Your task to perform on an android device: open app "Google Maps" (install if not already installed) Image 0: 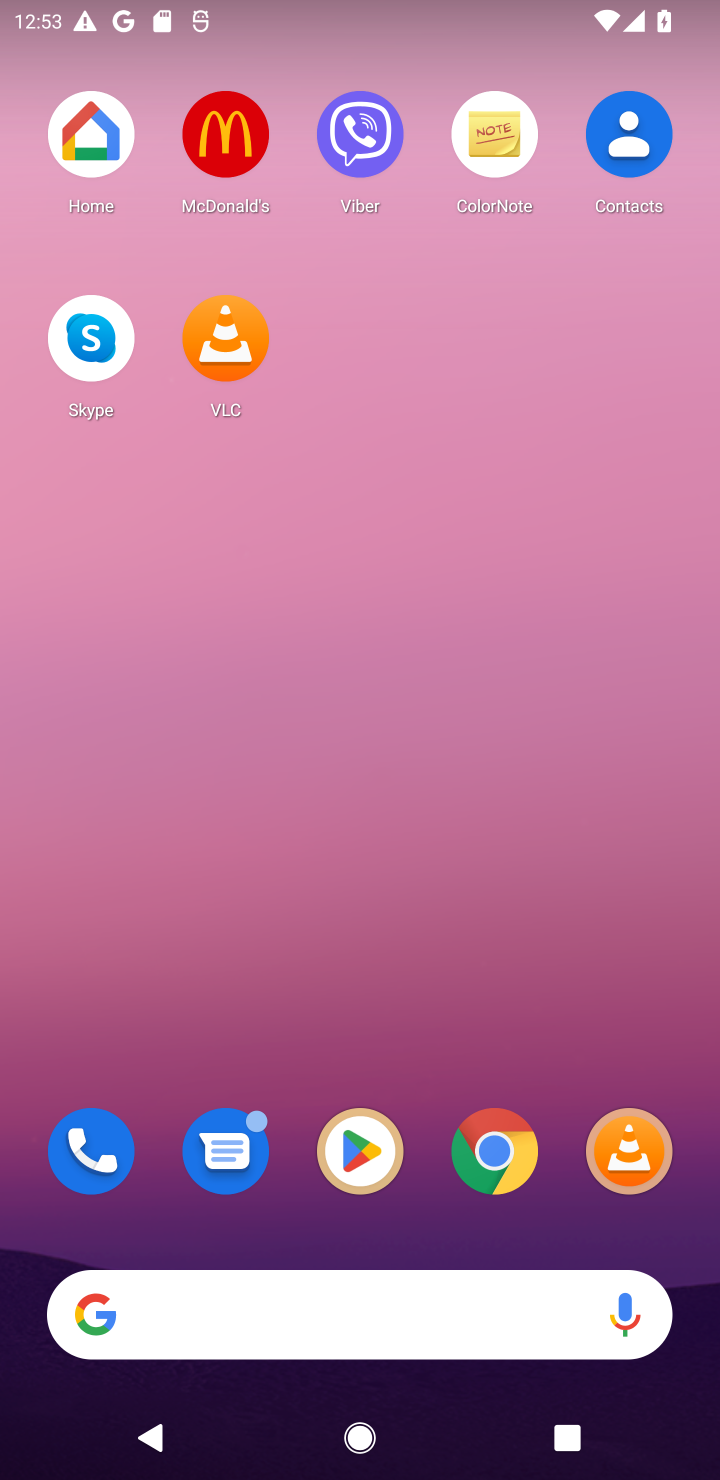
Step 0: click (356, 1141)
Your task to perform on an android device: open app "Google Maps" (install if not already installed) Image 1: 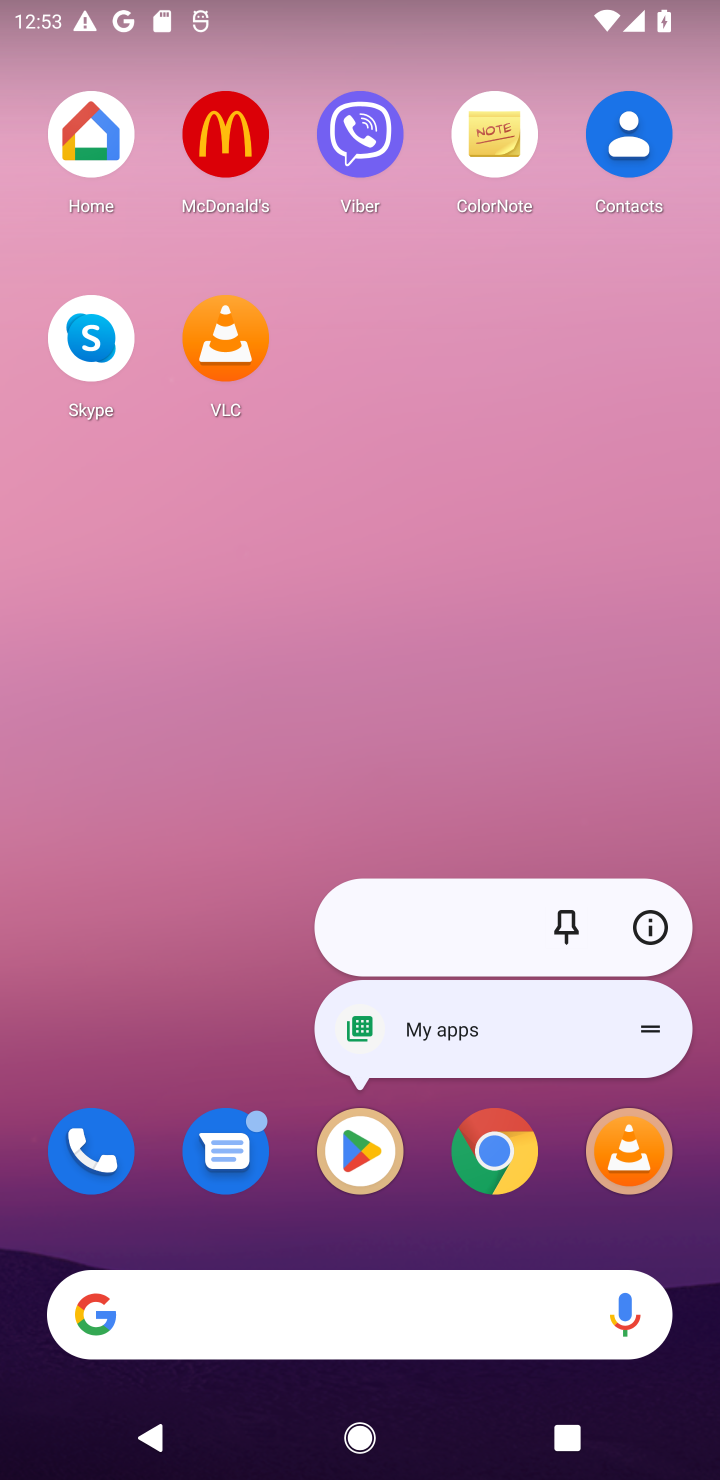
Step 1: click (375, 1145)
Your task to perform on an android device: open app "Google Maps" (install if not already installed) Image 2: 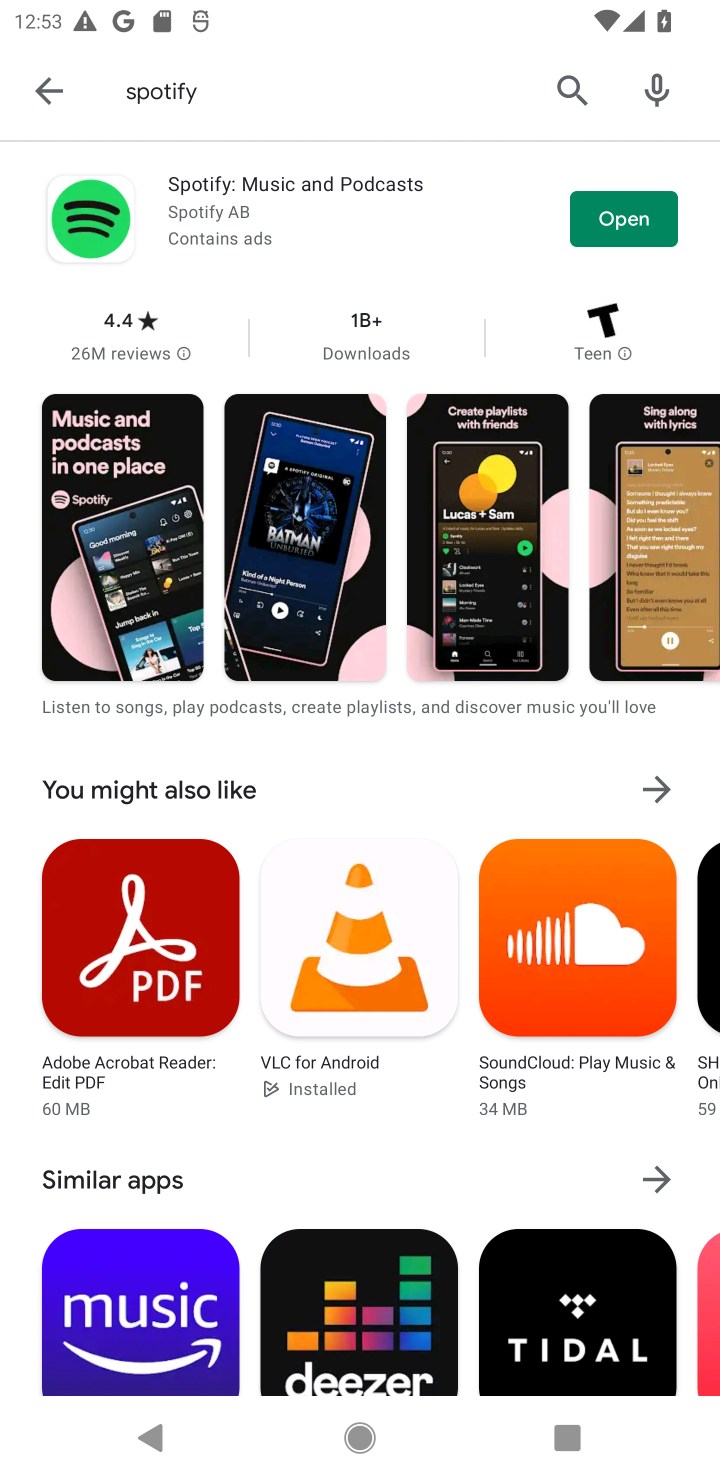
Step 2: click (560, 97)
Your task to perform on an android device: open app "Google Maps" (install if not already installed) Image 3: 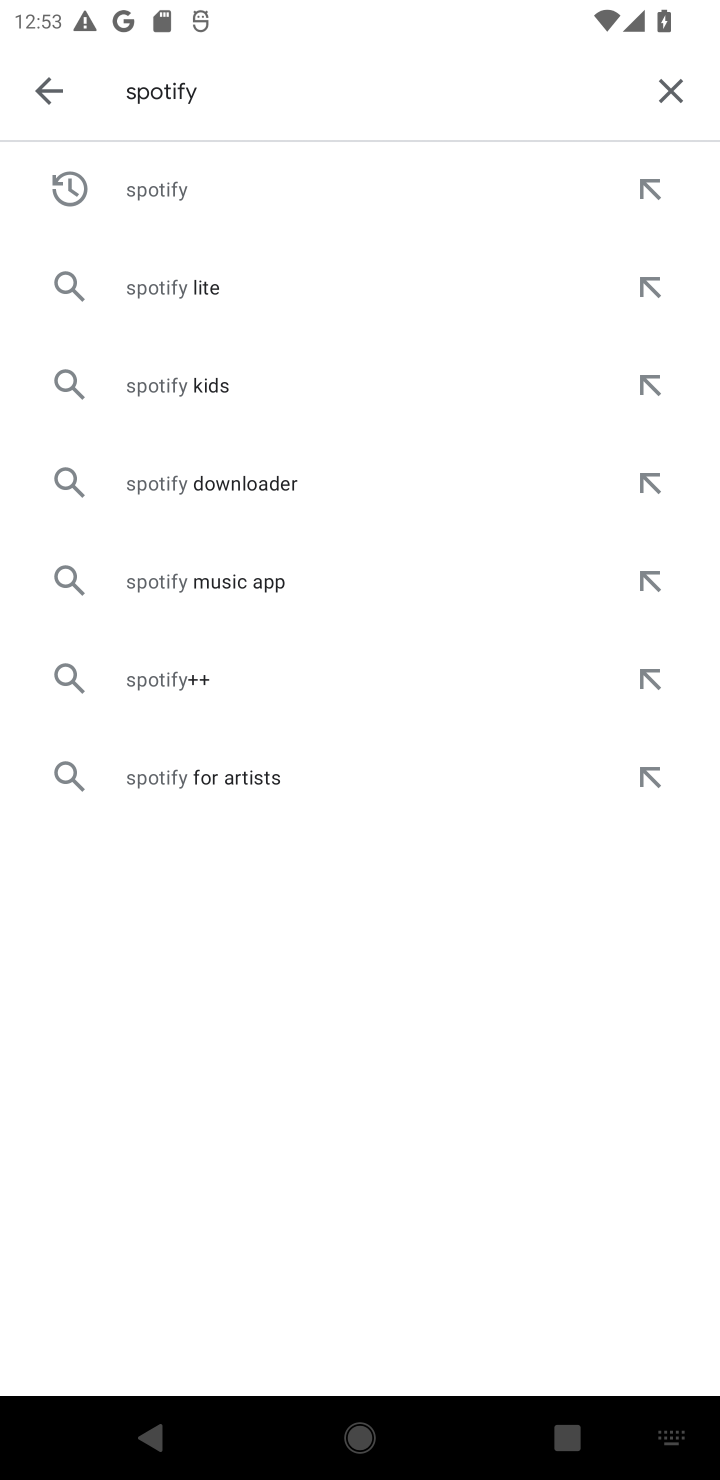
Step 3: click (670, 89)
Your task to perform on an android device: open app "Google Maps" (install if not already installed) Image 4: 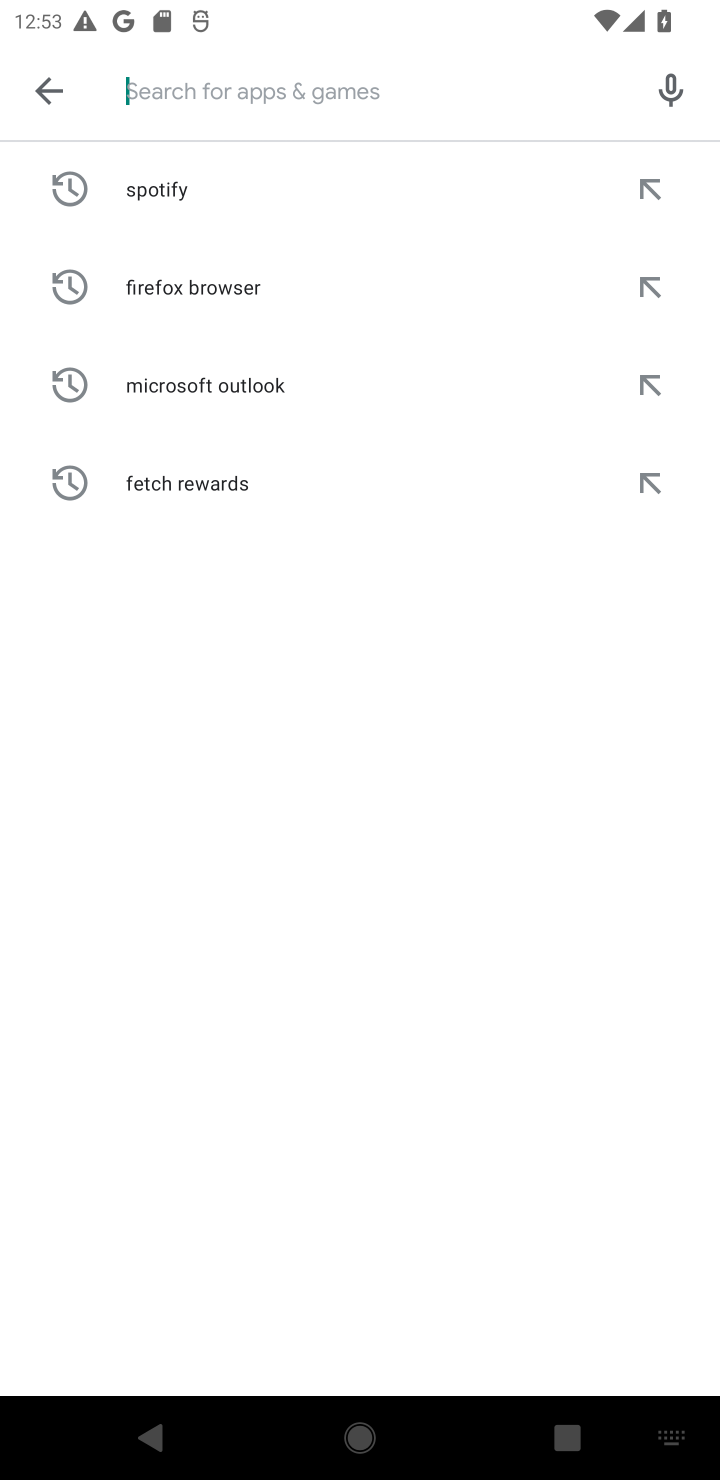
Step 4: type "Google Maps"
Your task to perform on an android device: open app "Google Maps" (install if not already installed) Image 5: 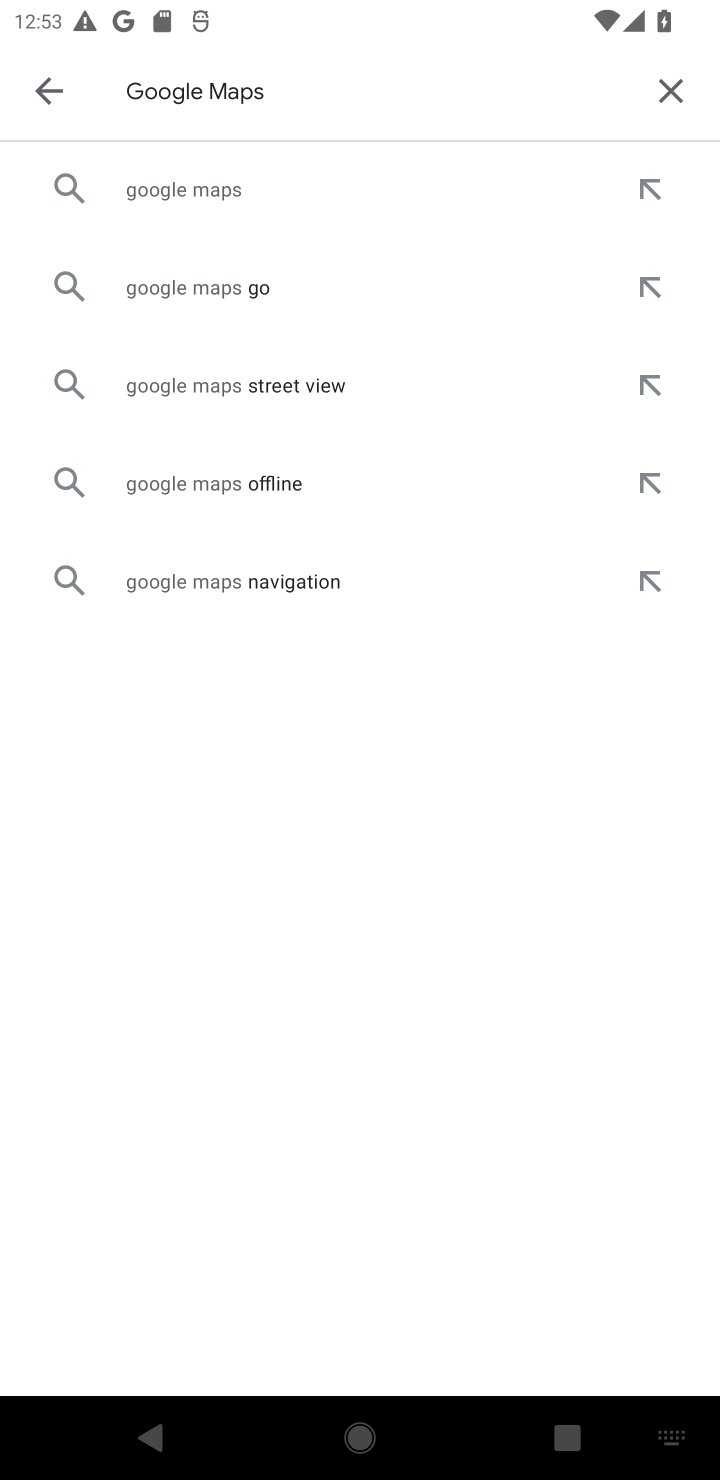
Step 5: click (286, 185)
Your task to perform on an android device: open app "Google Maps" (install if not already installed) Image 6: 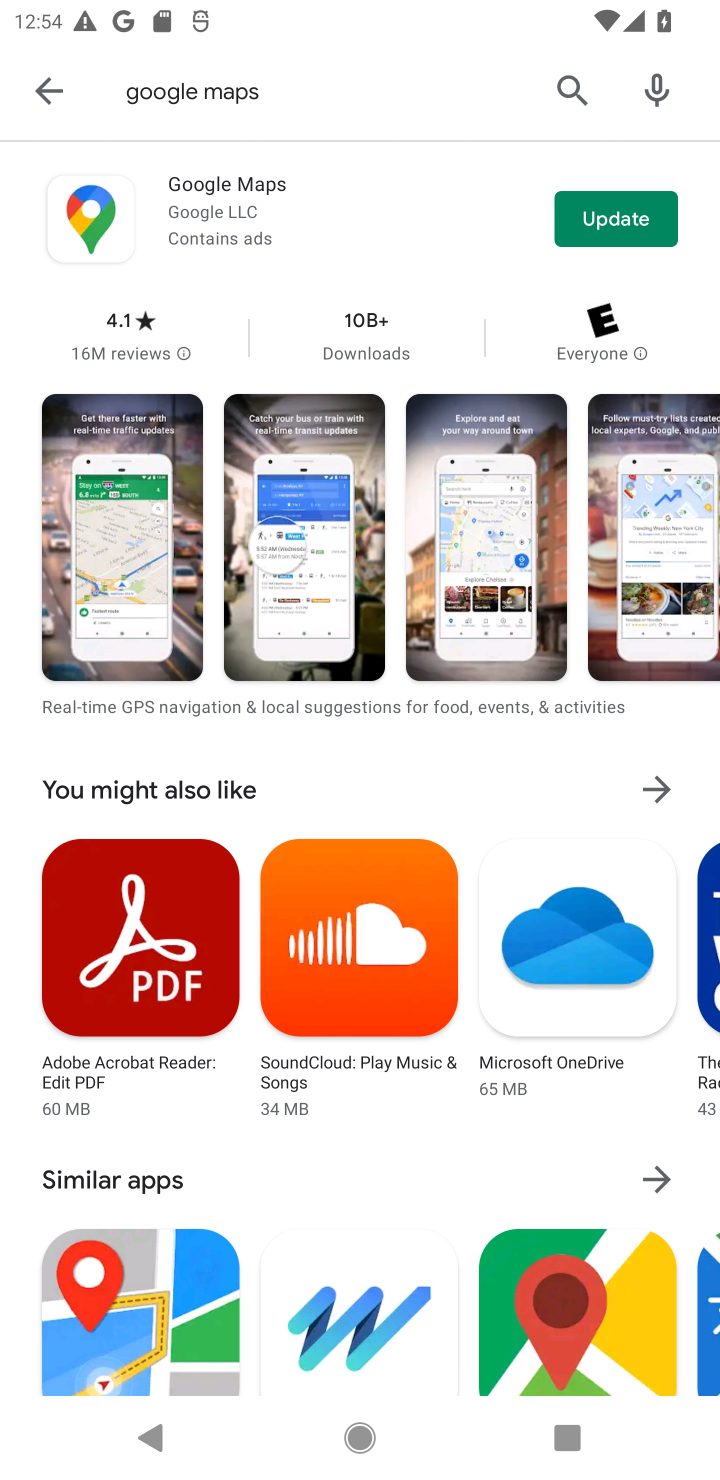
Step 6: click (603, 219)
Your task to perform on an android device: open app "Google Maps" (install if not already installed) Image 7: 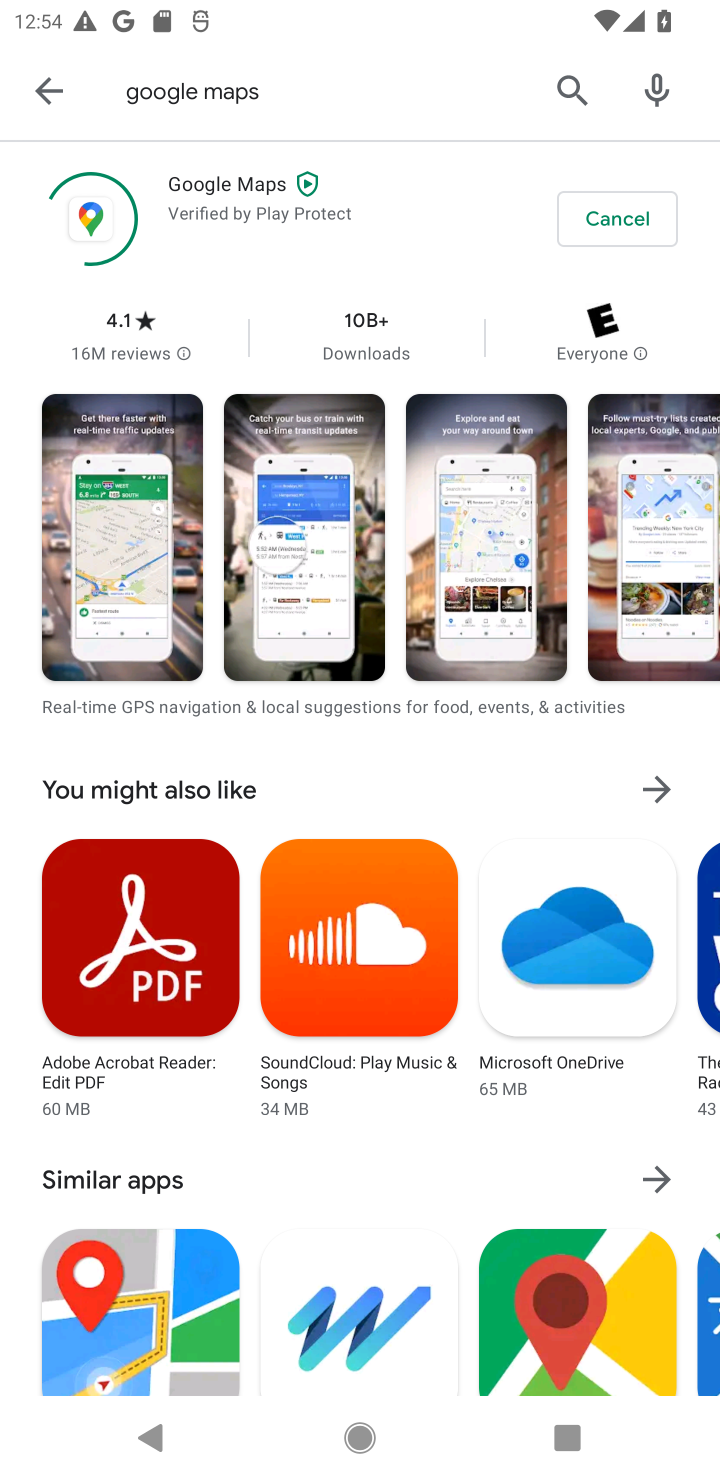
Step 7: click (342, 192)
Your task to perform on an android device: open app "Google Maps" (install if not already installed) Image 8: 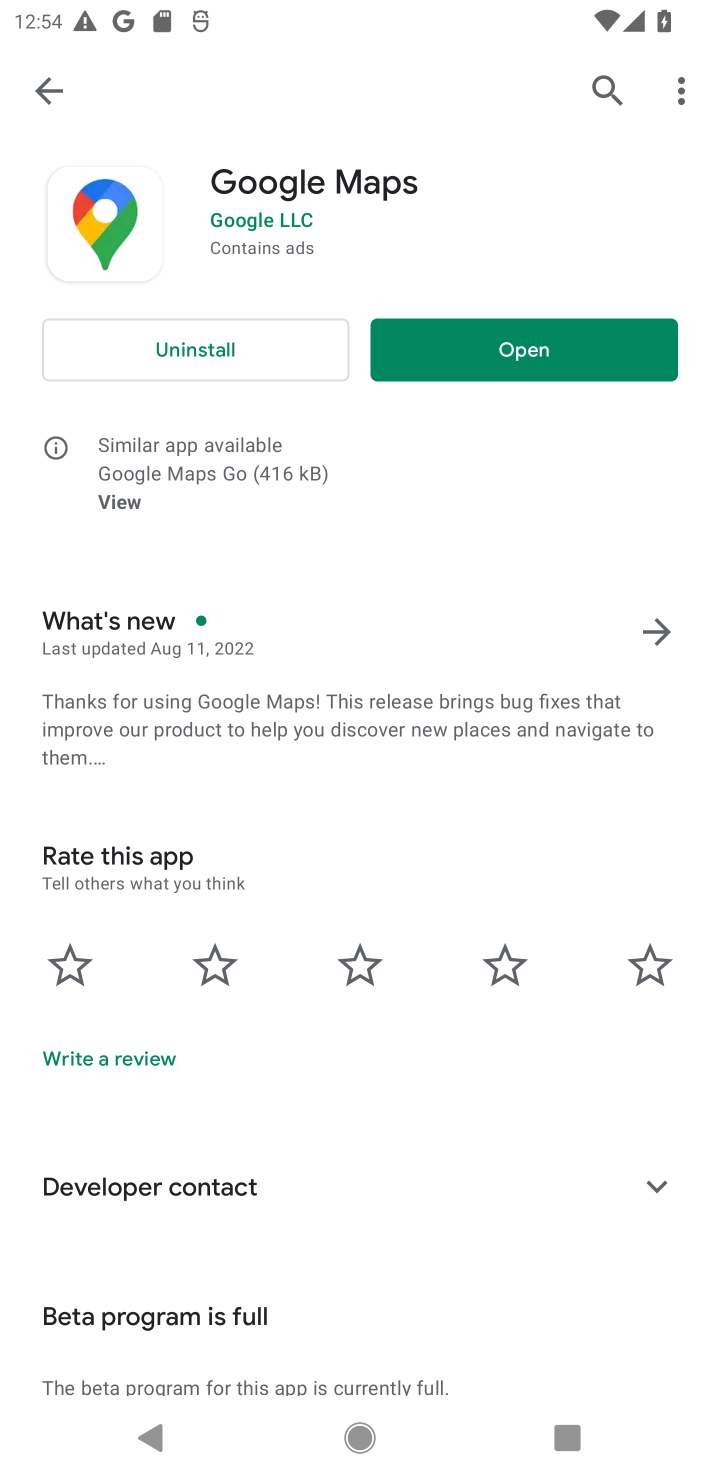
Step 8: click (455, 374)
Your task to perform on an android device: open app "Google Maps" (install if not already installed) Image 9: 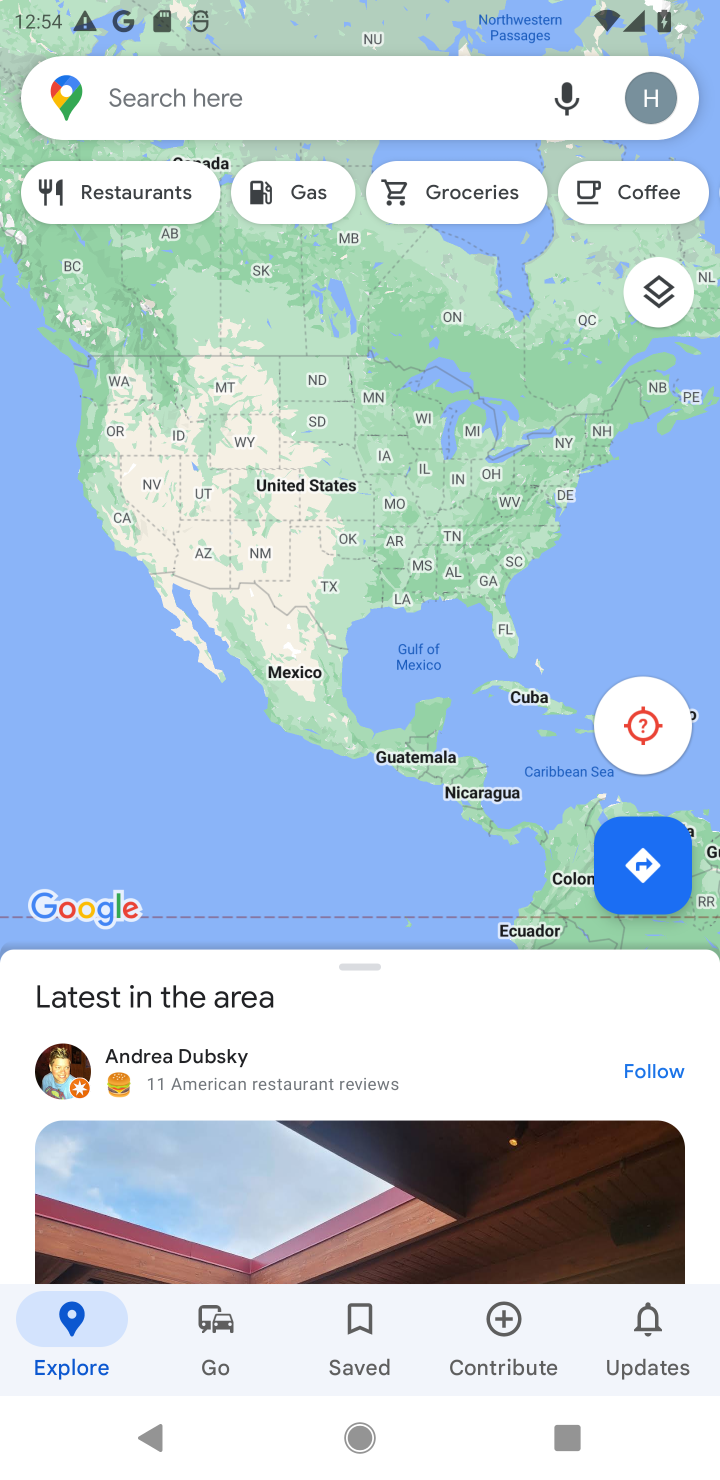
Step 9: task complete